Your task to perform on an android device: check battery use Image 0: 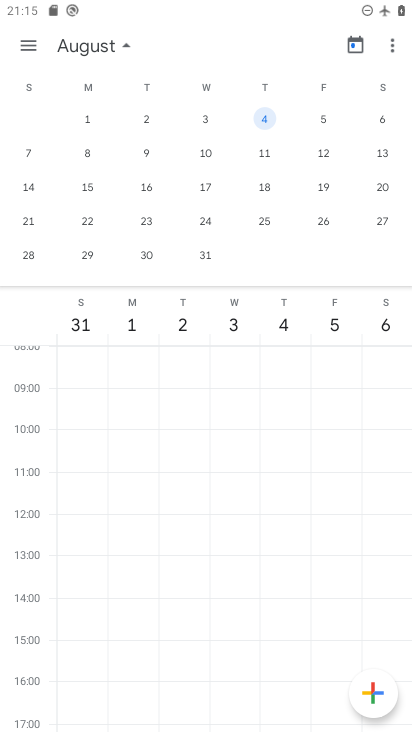
Step 0: press home button
Your task to perform on an android device: check battery use Image 1: 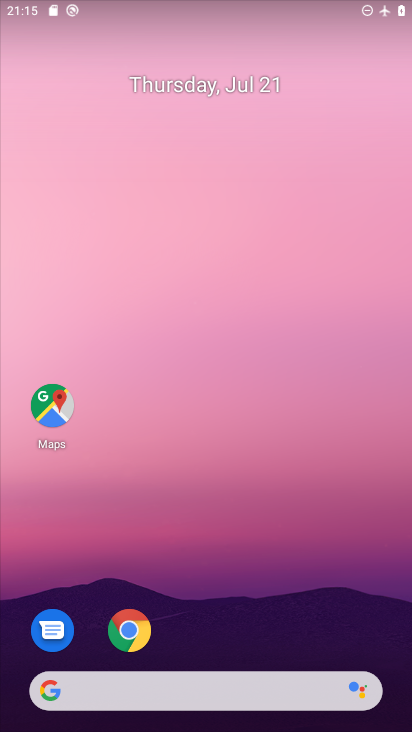
Step 1: drag from (226, 583) to (205, 31)
Your task to perform on an android device: check battery use Image 2: 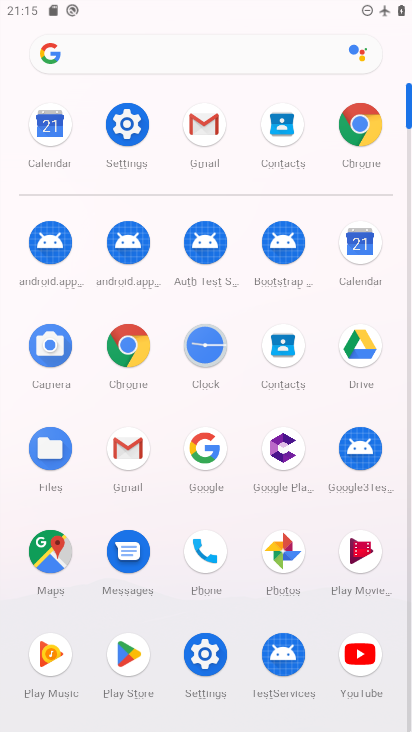
Step 2: click (138, 119)
Your task to perform on an android device: check battery use Image 3: 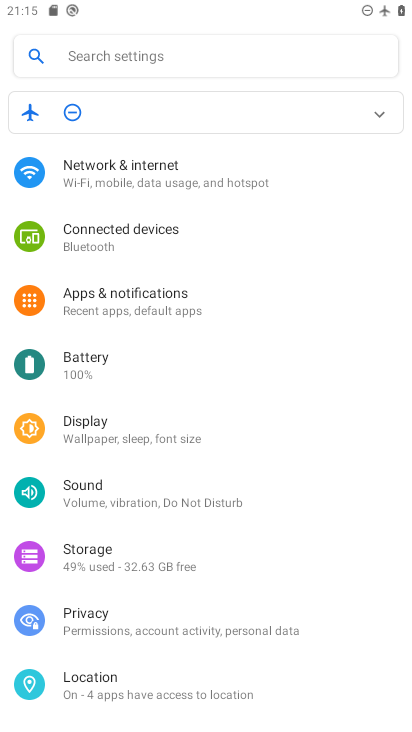
Step 3: drag from (204, 590) to (217, 246)
Your task to perform on an android device: check battery use Image 4: 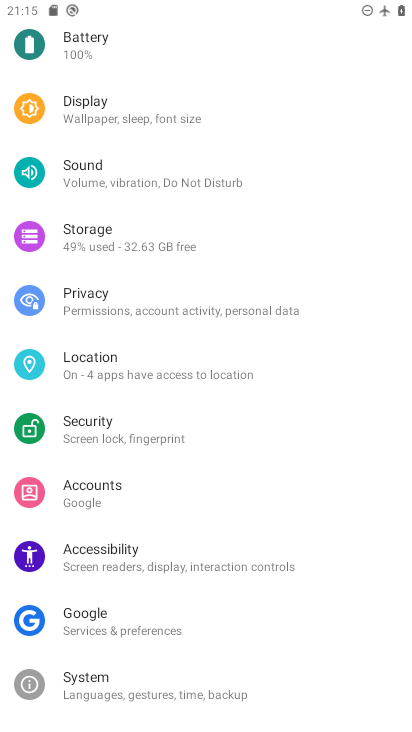
Step 4: drag from (217, 638) to (158, 672)
Your task to perform on an android device: check battery use Image 5: 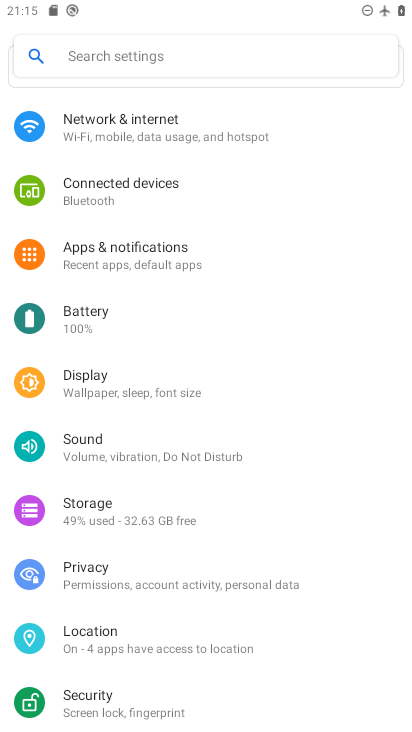
Step 5: drag from (180, 290) to (135, 564)
Your task to perform on an android device: check battery use Image 6: 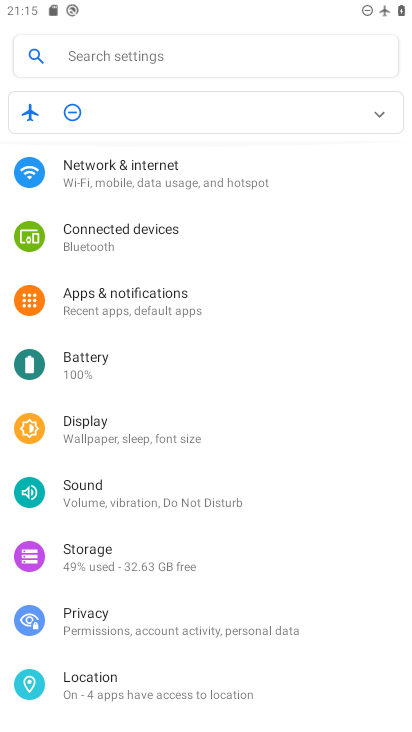
Step 6: drag from (134, 577) to (179, 339)
Your task to perform on an android device: check battery use Image 7: 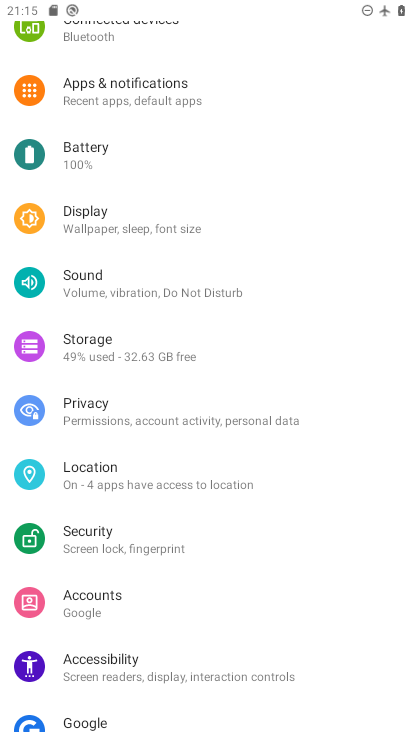
Step 7: click (122, 154)
Your task to perform on an android device: check battery use Image 8: 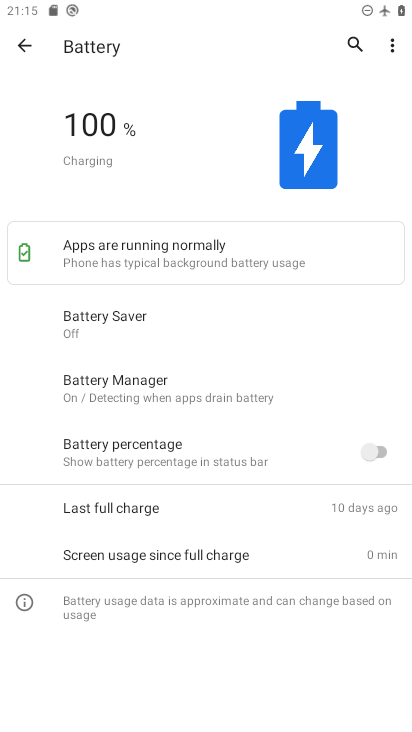
Step 8: click (392, 40)
Your task to perform on an android device: check battery use Image 9: 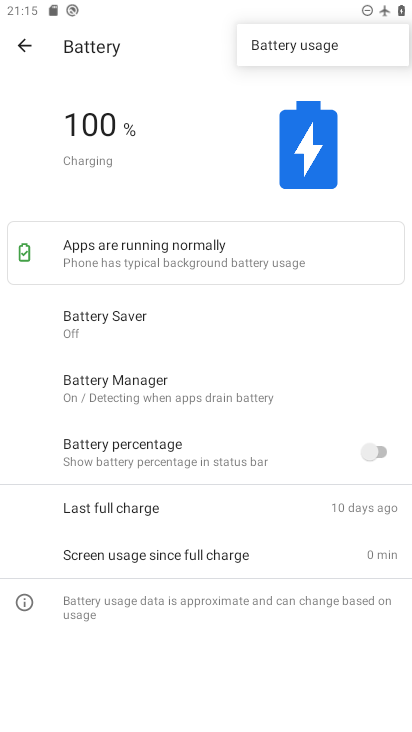
Step 9: click (341, 41)
Your task to perform on an android device: check battery use Image 10: 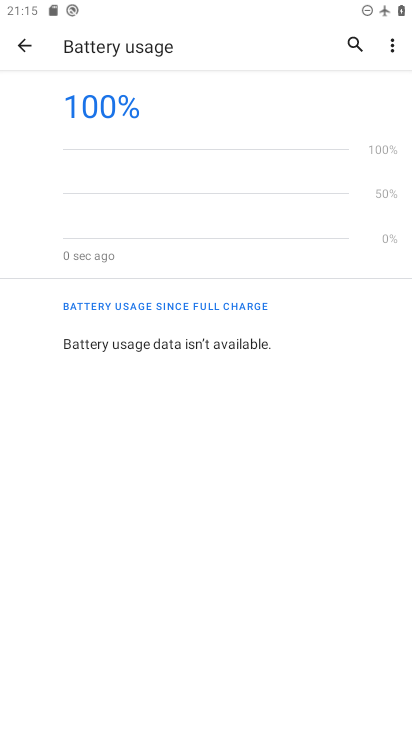
Step 10: task complete